Your task to perform on an android device: Open settings Image 0: 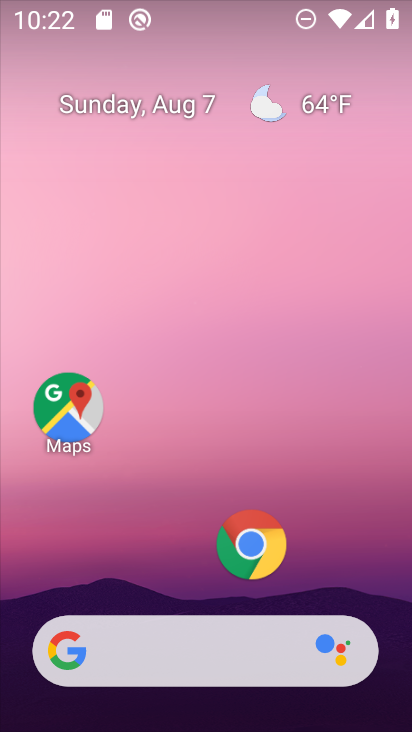
Step 0: drag from (227, 616) to (241, 56)
Your task to perform on an android device: Open settings Image 1: 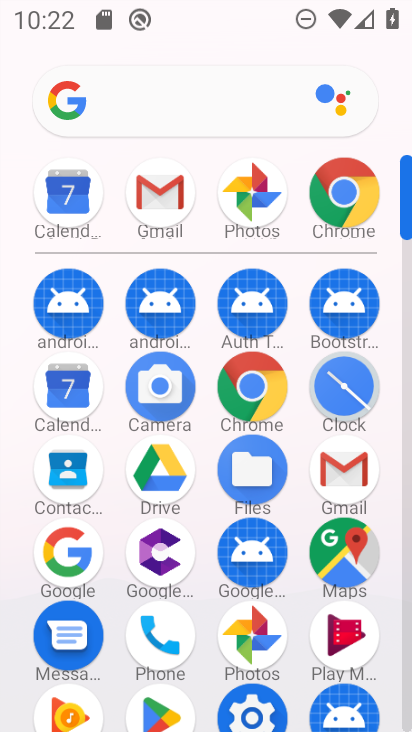
Step 1: click (244, 705)
Your task to perform on an android device: Open settings Image 2: 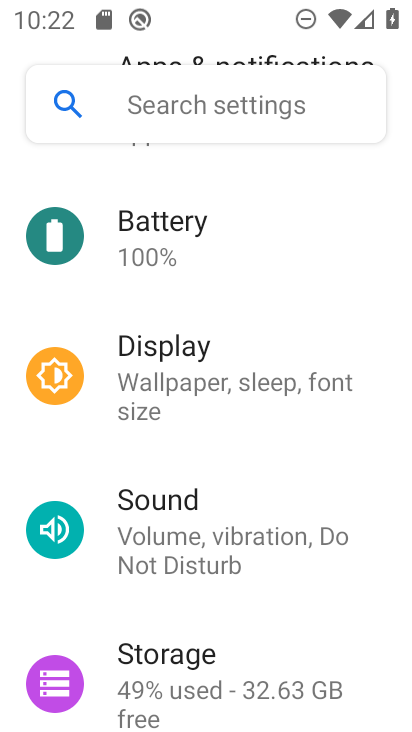
Step 2: task complete